Your task to perform on an android device: open wifi settings Image 0: 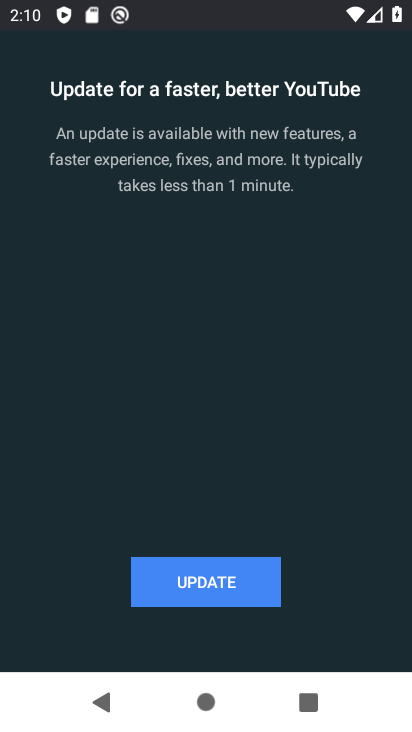
Step 0: press home button
Your task to perform on an android device: open wifi settings Image 1: 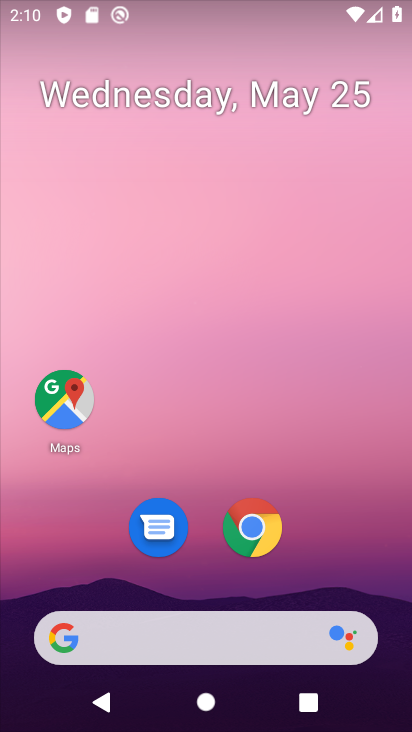
Step 1: drag from (70, 10) to (76, 437)
Your task to perform on an android device: open wifi settings Image 2: 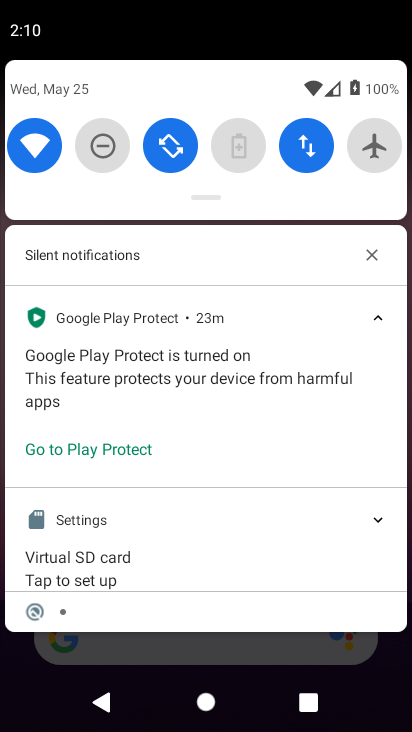
Step 2: click (39, 140)
Your task to perform on an android device: open wifi settings Image 3: 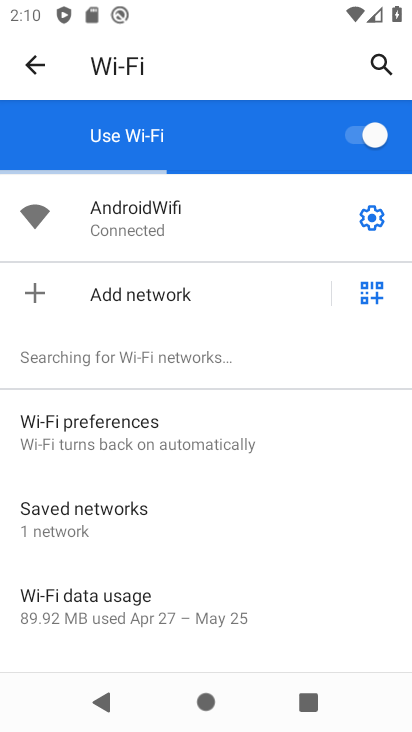
Step 3: task complete